Your task to perform on an android device: Open Google Image 0: 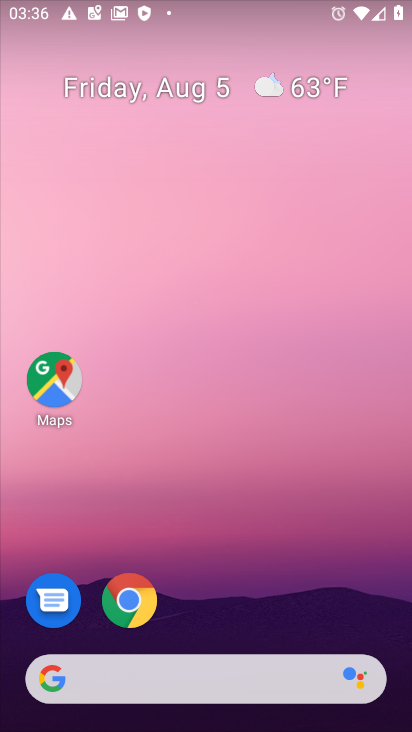
Step 0: drag from (197, 689) to (246, 124)
Your task to perform on an android device: Open Google Image 1: 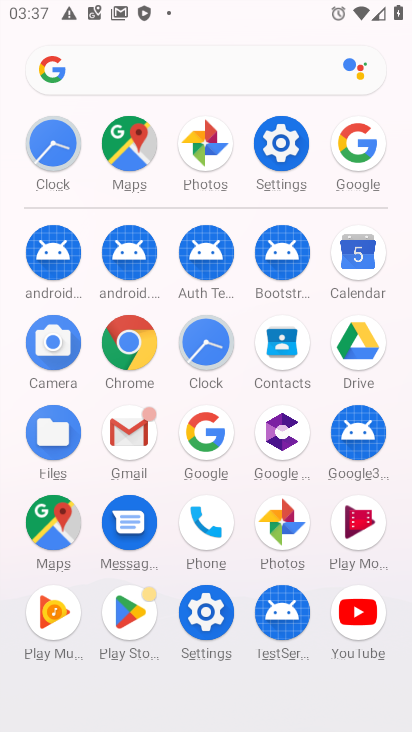
Step 1: click (356, 142)
Your task to perform on an android device: Open Google Image 2: 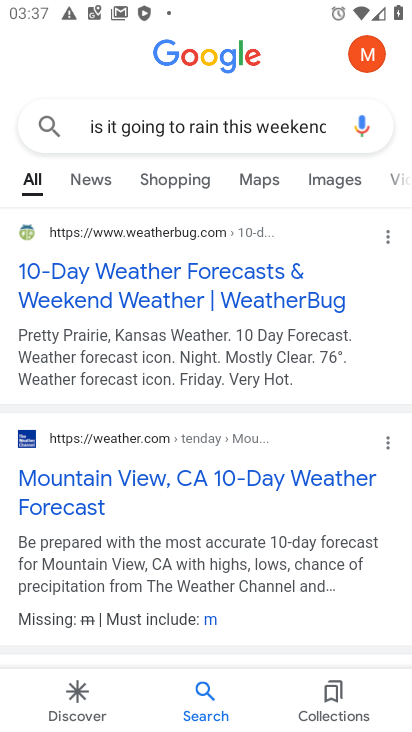
Step 2: task complete